Your task to perform on an android device: turn on sleep mode Image 0: 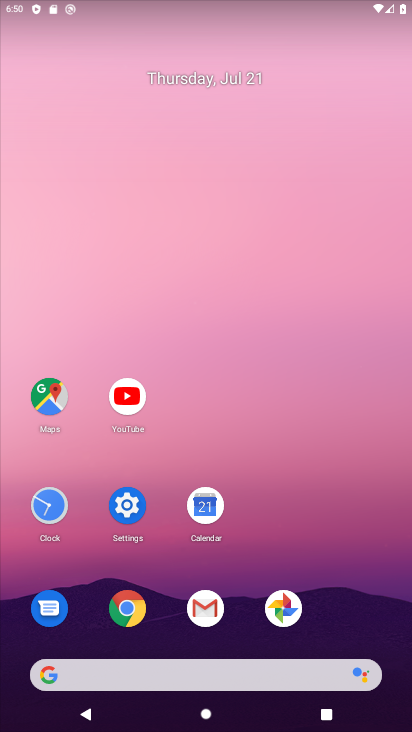
Step 0: click (129, 503)
Your task to perform on an android device: turn on sleep mode Image 1: 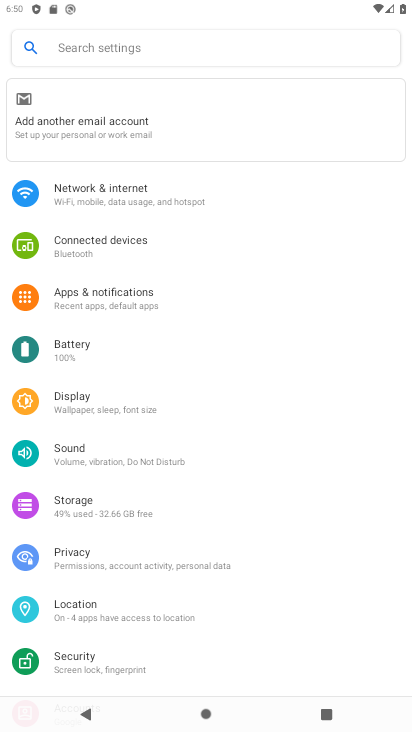
Step 1: click (75, 393)
Your task to perform on an android device: turn on sleep mode Image 2: 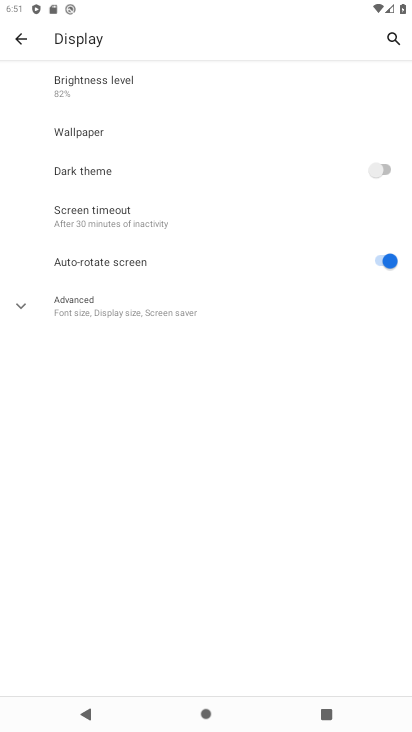
Step 2: task complete